Your task to perform on an android device: turn off smart reply in the gmail app Image 0: 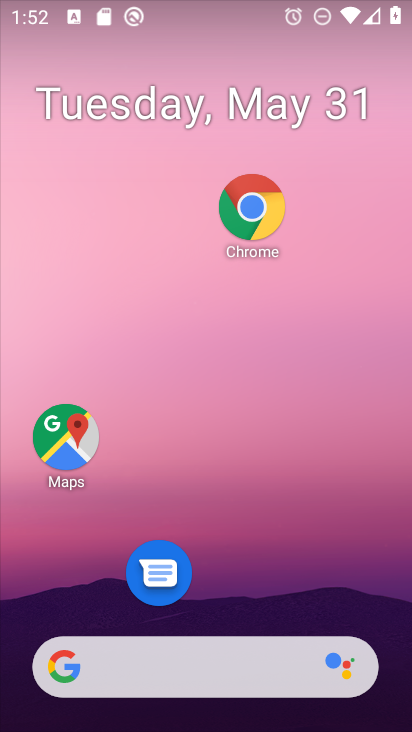
Step 0: drag from (233, 660) to (362, 49)
Your task to perform on an android device: turn off smart reply in the gmail app Image 1: 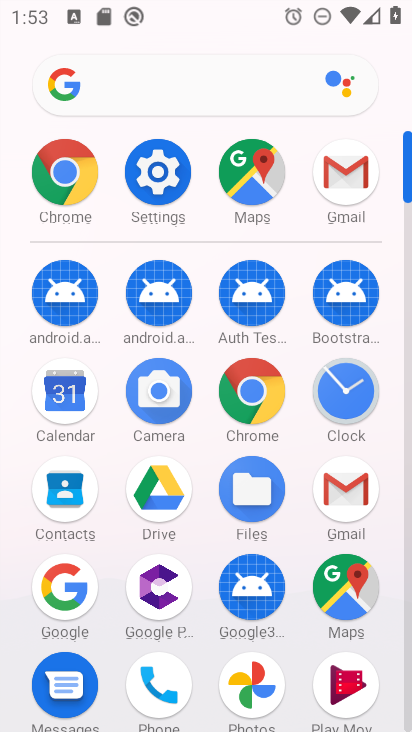
Step 1: click (343, 507)
Your task to perform on an android device: turn off smart reply in the gmail app Image 2: 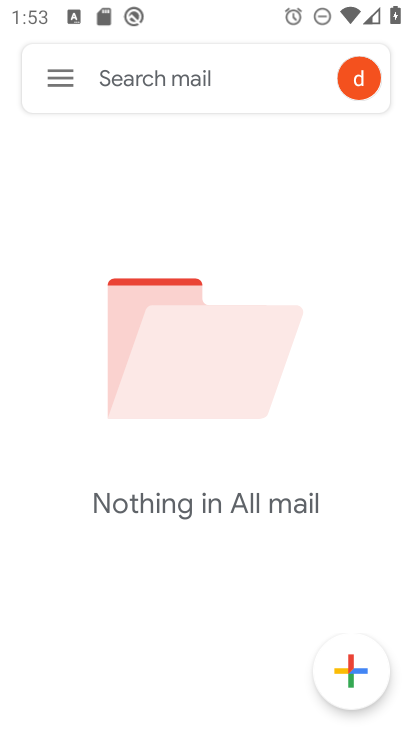
Step 2: click (74, 76)
Your task to perform on an android device: turn off smart reply in the gmail app Image 3: 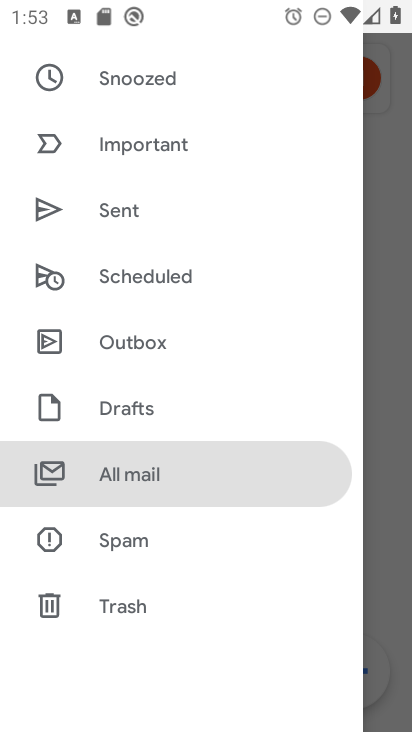
Step 3: drag from (110, 581) to (219, 84)
Your task to perform on an android device: turn off smart reply in the gmail app Image 4: 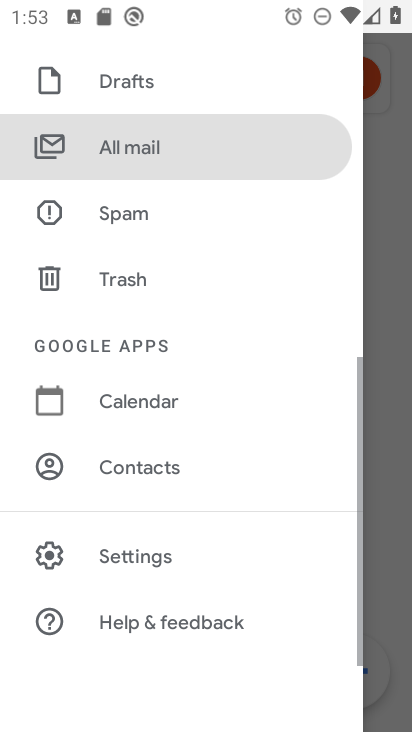
Step 4: click (153, 557)
Your task to perform on an android device: turn off smart reply in the gmail app Image 5: 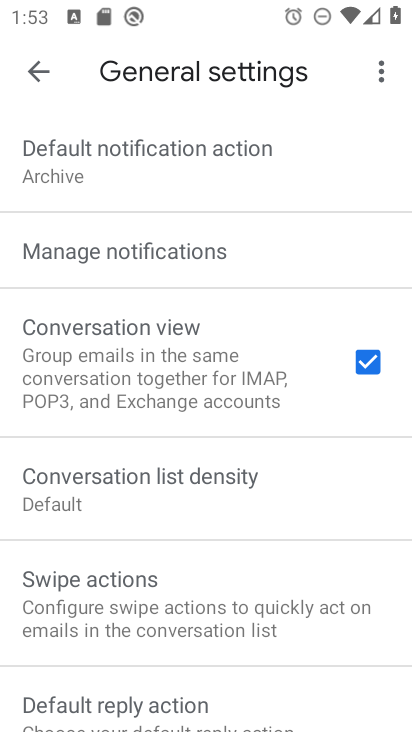
Step 5: click (31, 75)
Your task to perform on an android device: turn off smart reply in the gmail app Image 6: 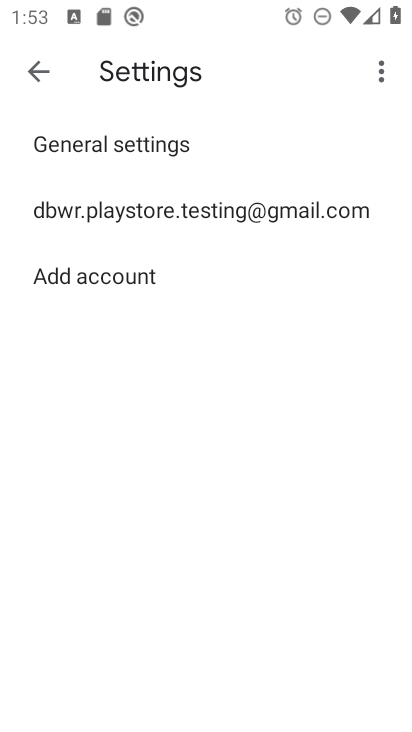
Step 6: click (150, 218)
Your task to perform on an android device: turn off smart reply in the gmail app Image 7: 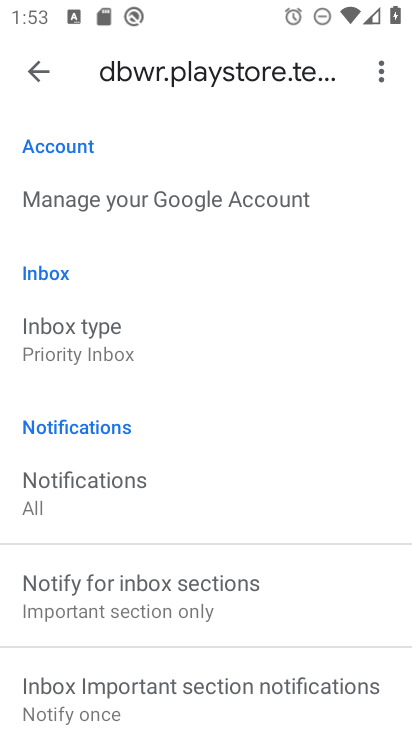
Step 7: click (118, 337)
Your task to perform on an android device: turn off smart reply in the gmail app Image 8: 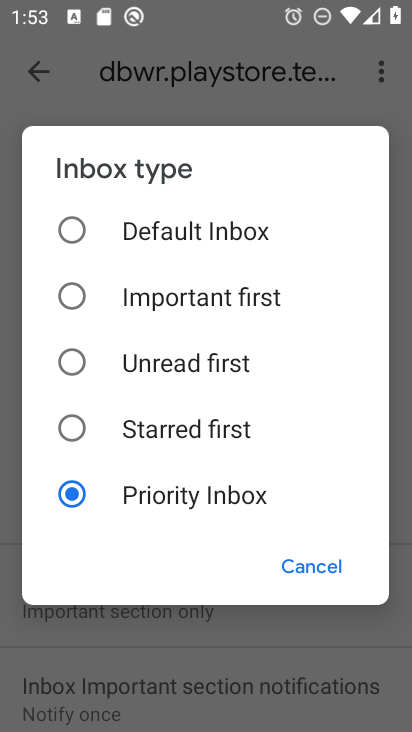
Step 8: click (122, 368)
Your task to perform on an android device: turn off smart reply in the gmail app Image 9: 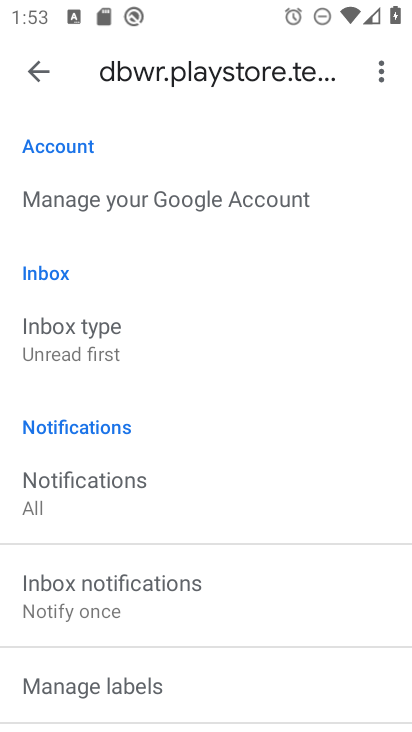
Step 9: task complete